Your task to perform on an android device: Go to calendar. Show me events next week Image 0: 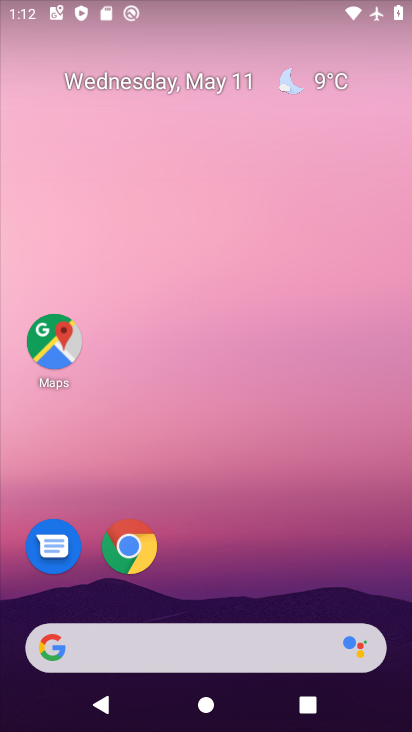
Step 0: drag from (229, 653) to (168, 32)
Your task to perform on an android device: Go to calendar. Show me events next week Image 1: 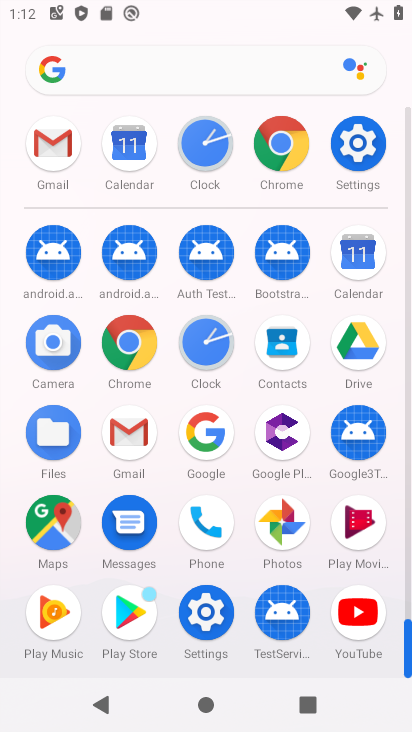
Step 1: click (349, 257)
Your task to perform on an android device: Go to calendar. Show me events next week Image 2: 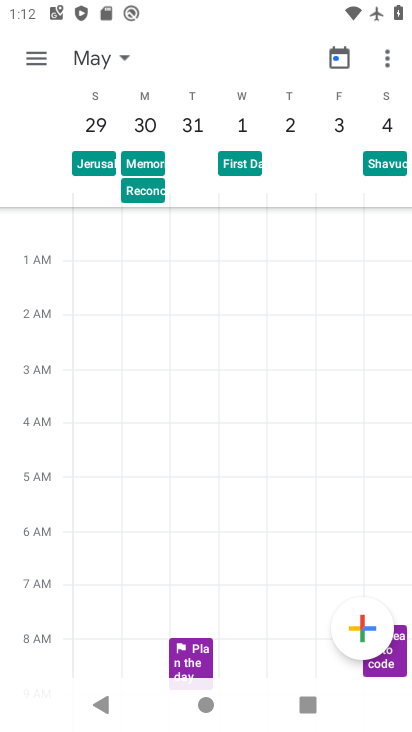
Step 2: click (119, 59)
Your task to perform on an android device: Go to calendar. Show me events next week Image 3: 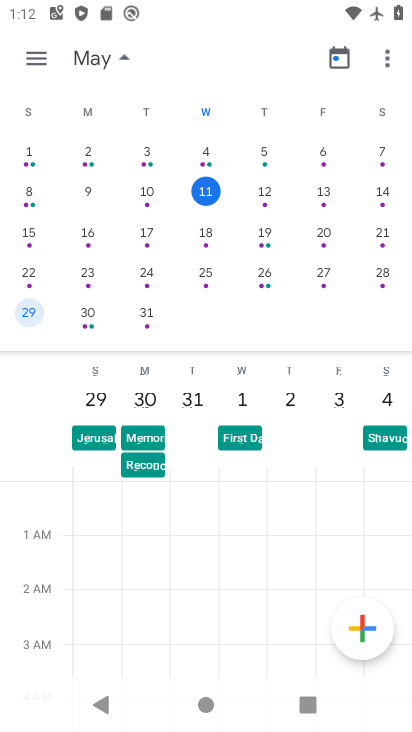
Step 3: click (205, 236)
Your task to perform on an android device: Go to calendar. Show me events next week Image 4: 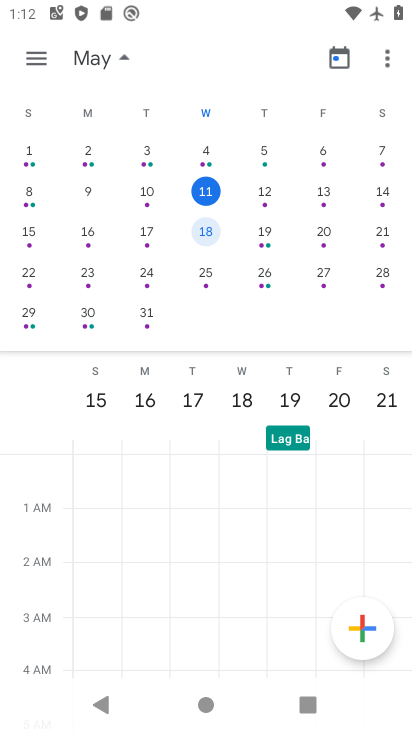
Step 4: click (44, 58)
Your task to perform on an android device: Go to calendar. Show me events next week Image 5: 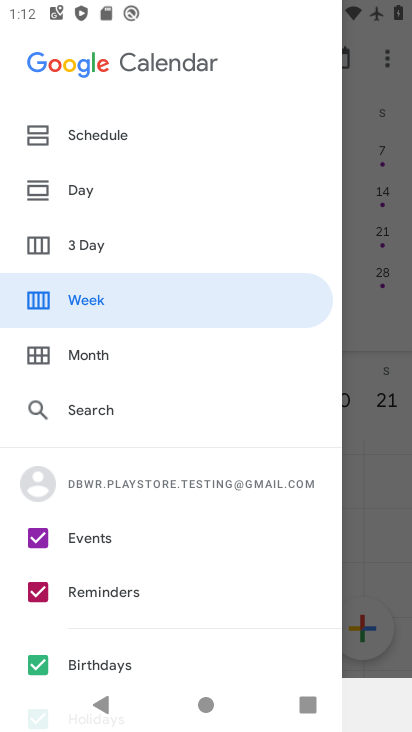
Step 5: click (99, 315)
Your task to perform on an android device: Go to calendar. Show me events next week Image 6: 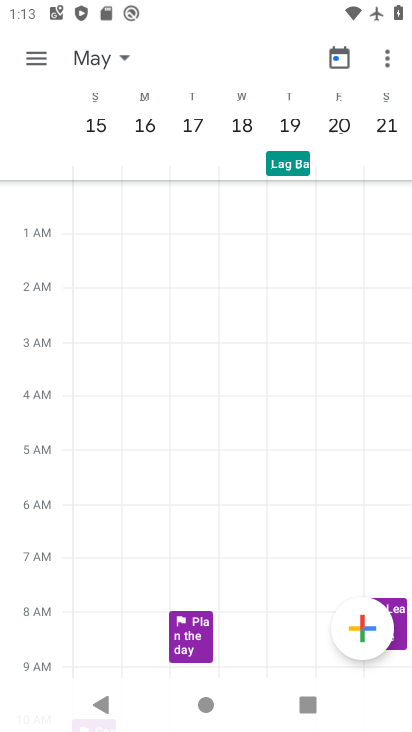
Step 6: task complete